Your task to perform on an android device: Open Yahoo.com Image 0: 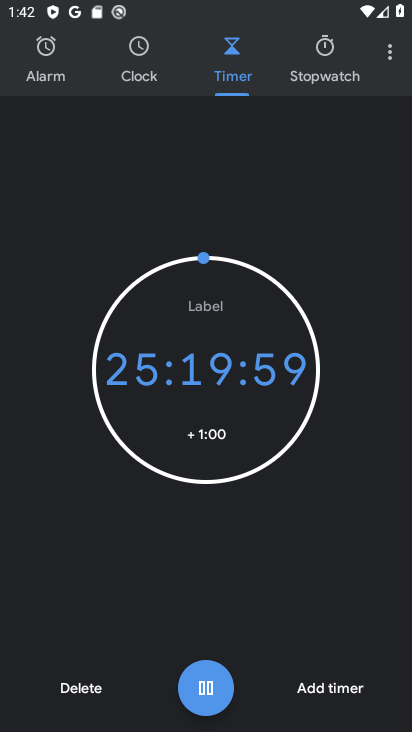
Step 0: press home button
Your task to perform on an android device: Open Yahoo.com Image 1: 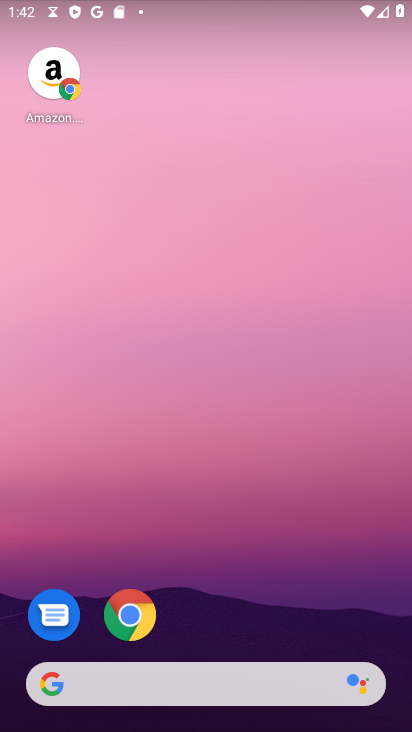
Step 1: drag from (363, 513) to (376, 176)
Your task to perform on an android device: Open Yahoo.com Image 2: 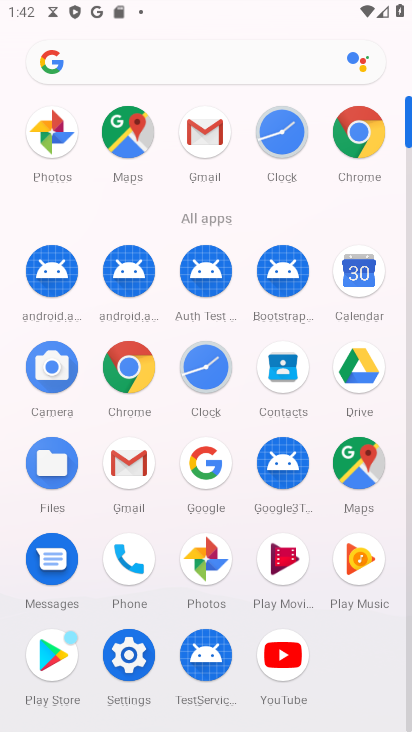
Step 2: click (366, 153)
Your task to perform on an android device: Open Yahoo.com Image 3: 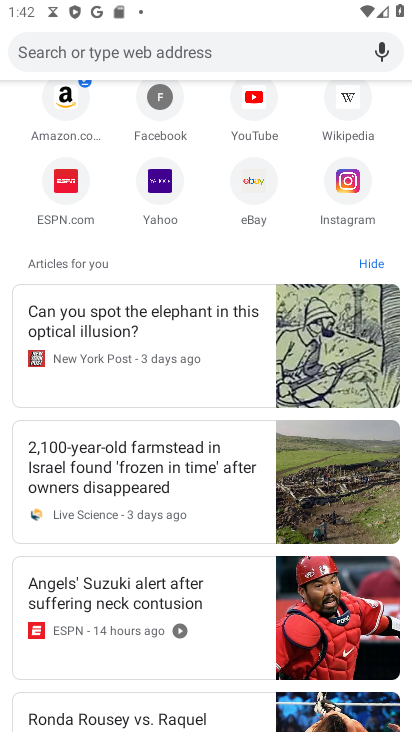
Step 3: click (154, 193)
Your task to perform on an android device: Open Yahoo.com Image 4: 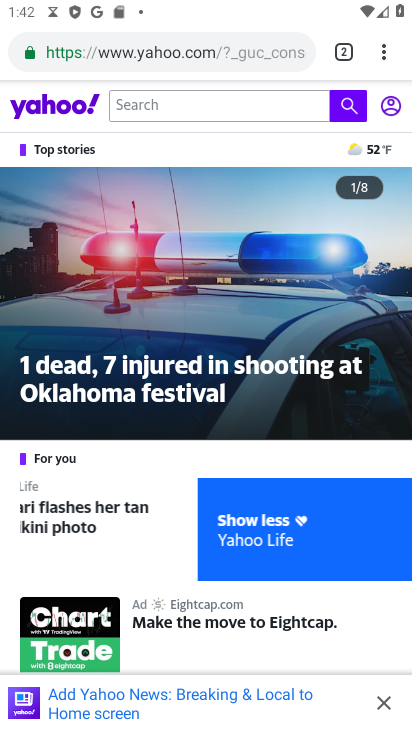
Step 4: task complete